Your task to perform on an android device: Check the weather Image 0: 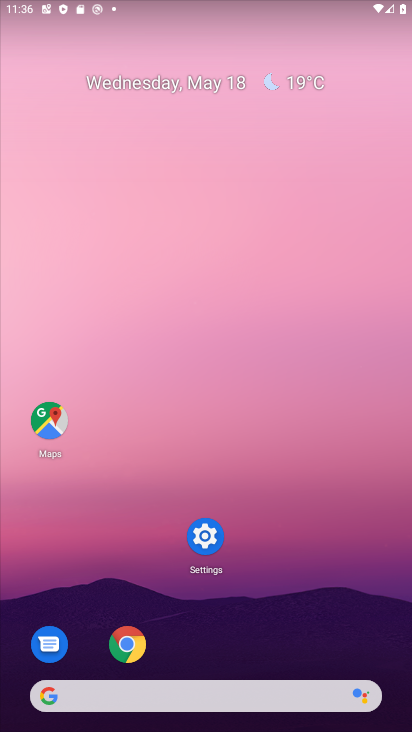
Step 0: click (297, 78)
Your task to perform on an android device: Check the weather Image 1: 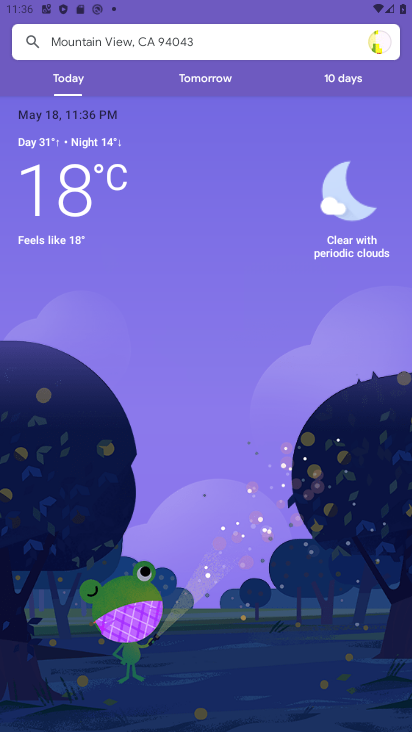
Step 1: task complete